Your task to perform on an android device: open a bookmark in the chrome app Image 0: 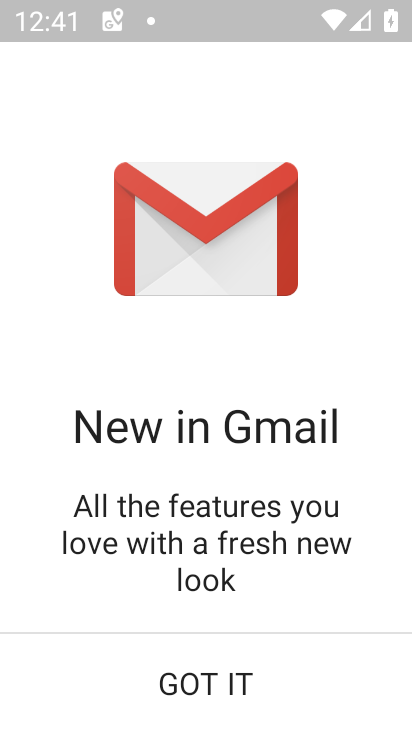
Step 0: click (206, 679)
Your task to perform on an android device: open a bookmark in the chrome app Image 1: 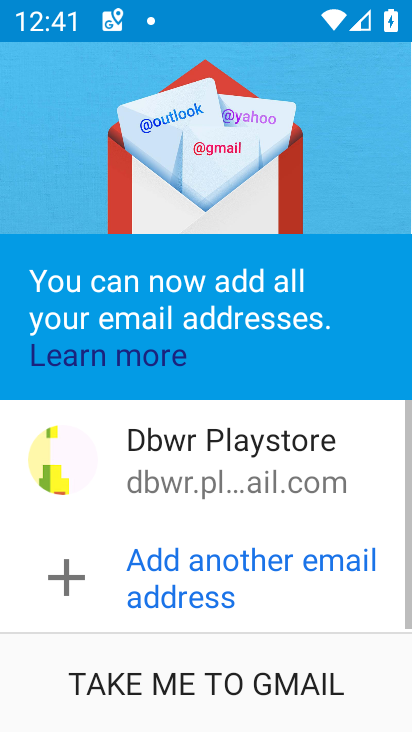
Step 1: click (188, 690)
Your task to perform on an android device: open a bookmark in the chrome app Image 2: 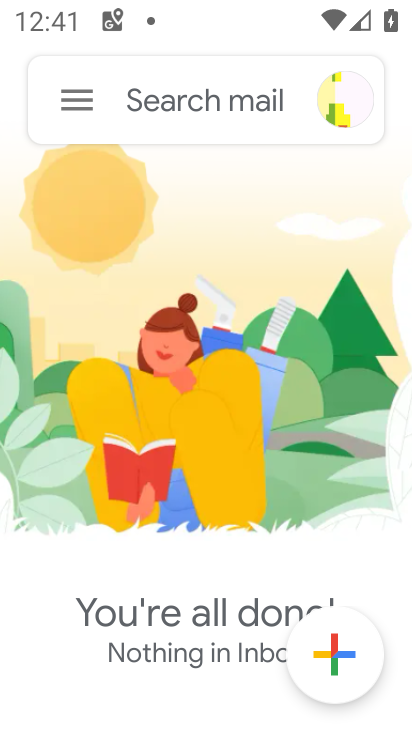
Step 2: press home button
Your task to perform on an android device: open a bookmark in the chrome app Image 3: 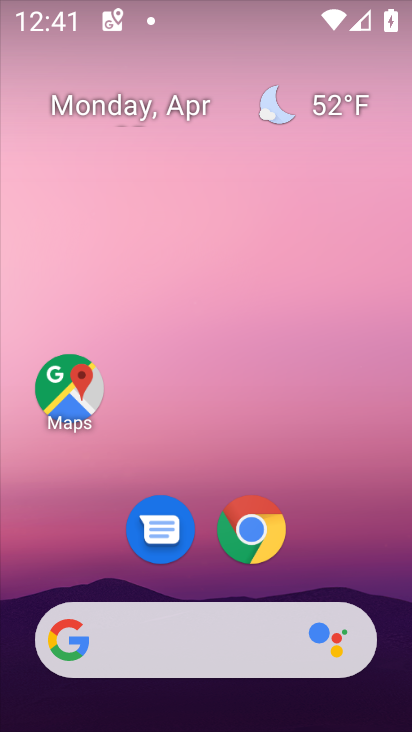
Step 3: drag from (392, 647) to (363, 131)
Your task to perform on an android device: open a bookmark in the chrome app Image 4: 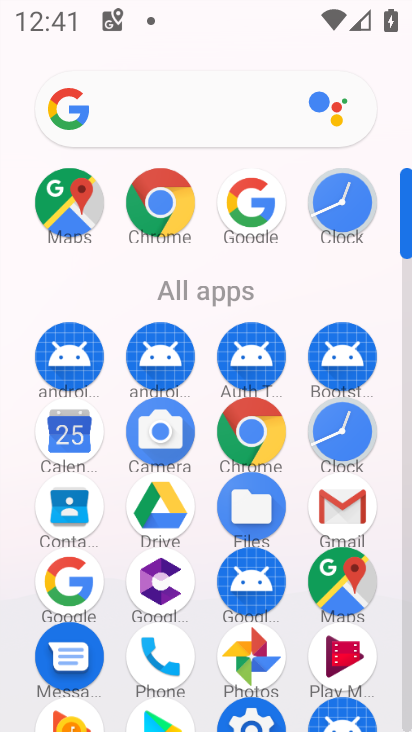
Step 4: click (159, 203)
Your task to perform on an android device: open a bookmark in the chrome app Image 5: 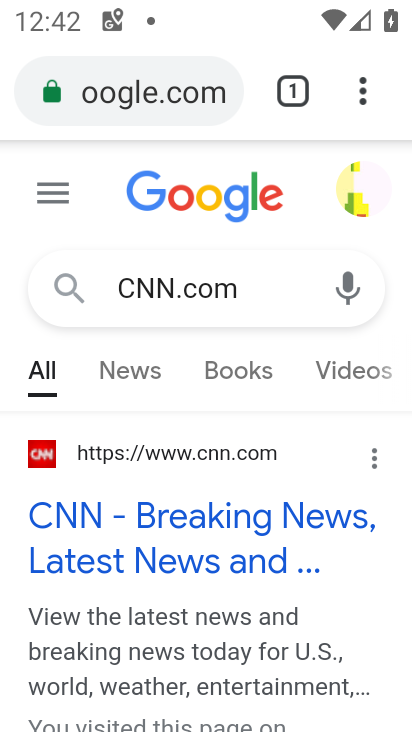
Step 5: click (359, 83)
Your task to perform on an android device: open a bookmark in the chrome app Image 6: 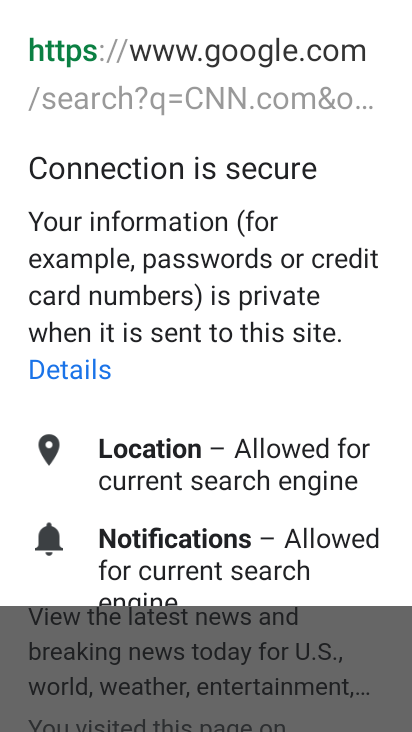
Step 6: task complete